Your task to perform on an android device: Open my contact list Image 0: 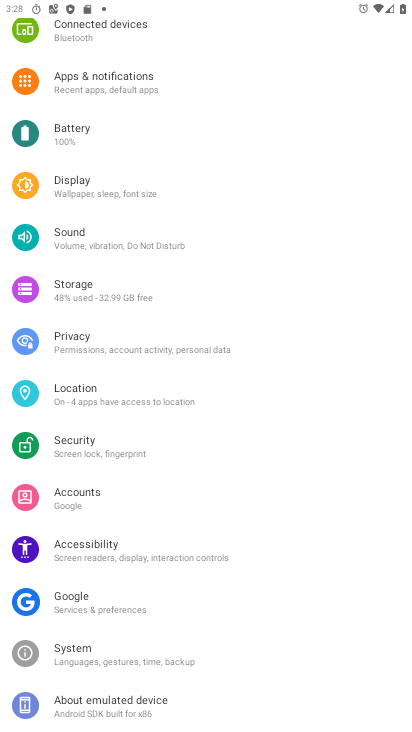
Step 0: click (38, 425)
Your task to perform on an android device: Open my contact list Image 1: 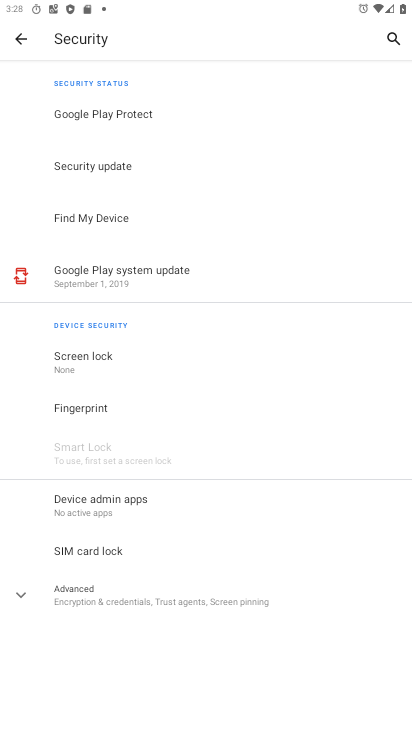
Step 1: press home button
Your task to perform on an android device: Open my contact list Image 2: 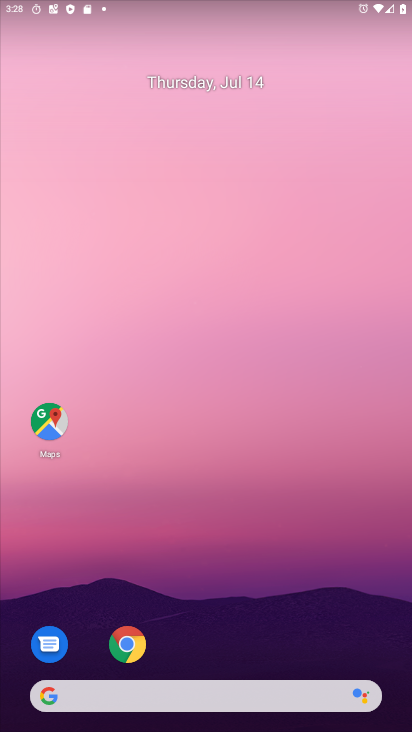
Step 2: drag from (10, 697) to (276, 150)
Your task to perform on an android device: Open my contact list Image 3: 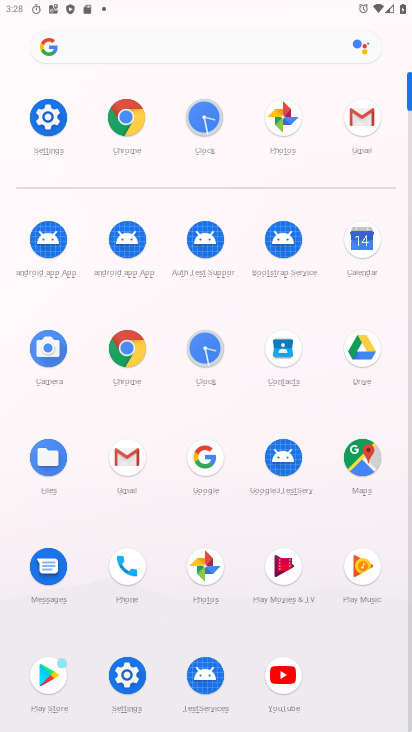
Step 3: click (363, 238)
Your task to perform on an android device: Open my contact list Image 4: 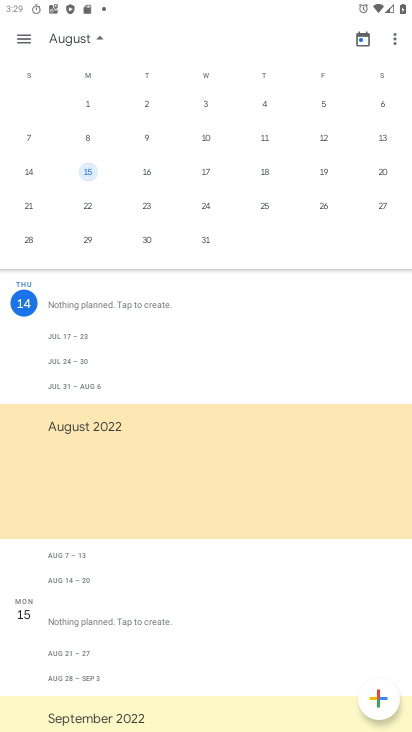
Step 4: task complete